Your task to perform on an android device: toggle translation in the chrome app Image 0: 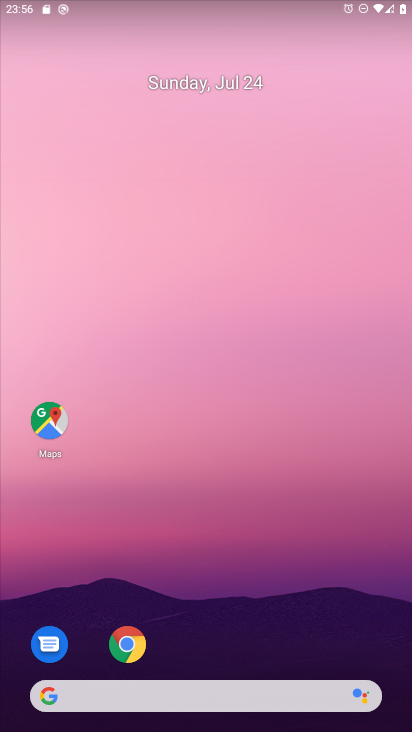
Step 0: click (126, 647)
Your task to perform on an android device: toggle translation in the chrome app Image 1: 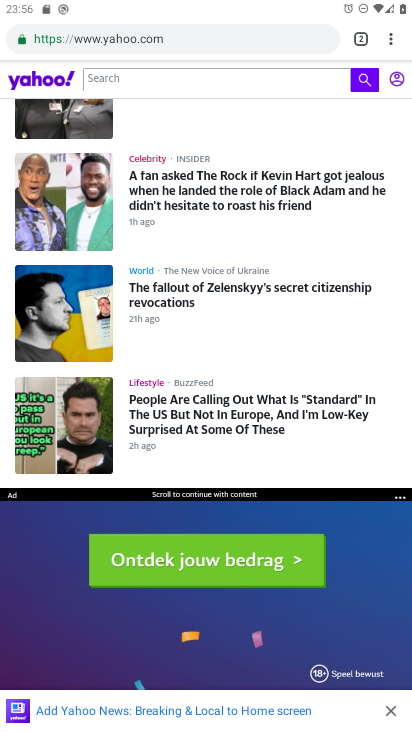
Step 1: click (390, 40)
Your task to perform on an android device: toggle translation in the chrome app Image 2: 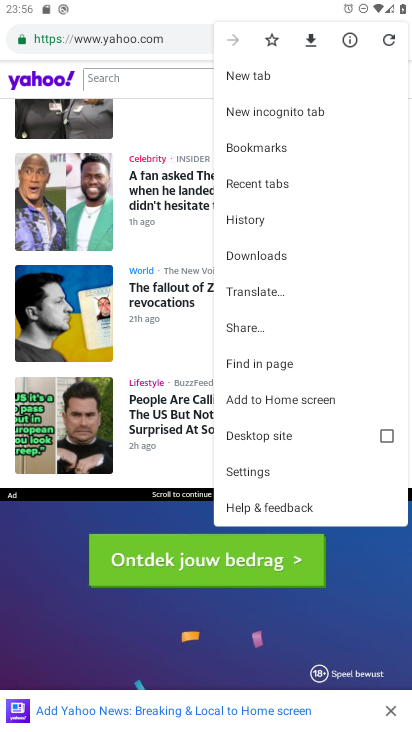
Step 2: click (252, 464)
Your task to perform on an android device: toggle translation in the chrome app Image 3: 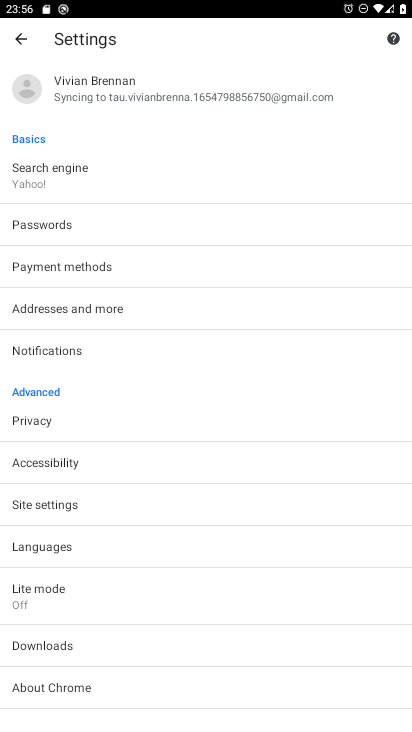
Step 3: click (32, 546)
Your task to perform on an android device: toggle translation in the chrome app Image 4: 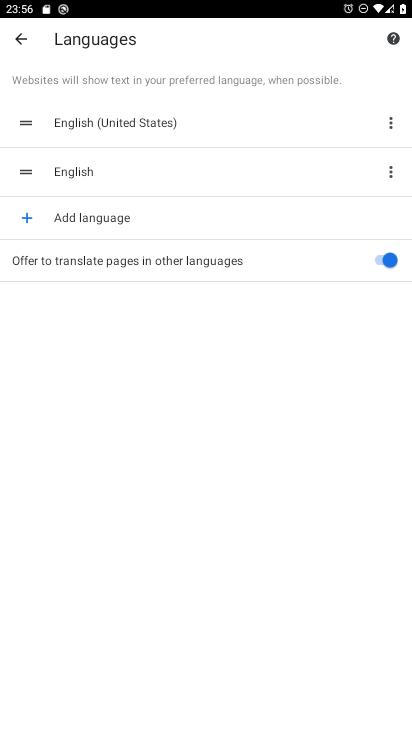
Step 4: click (378, 259)
Your task to perform on an android device: toggle translation in the chrome app Image 5: 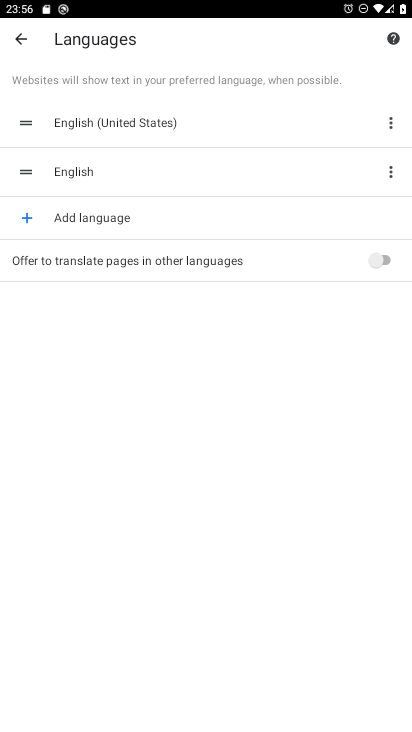
Step 5: task complete